Your task to perform on an android device: turn off javascript in the chrome app Image 0: 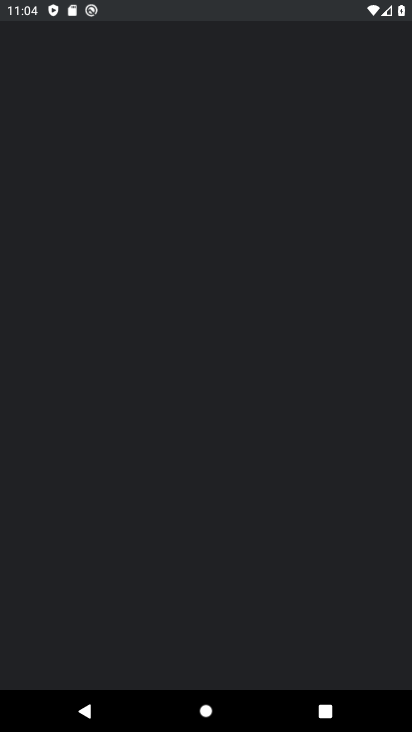
Step 0: press home button
Your task to perform on an android device: turn off javascript in the chrome app Image 1: 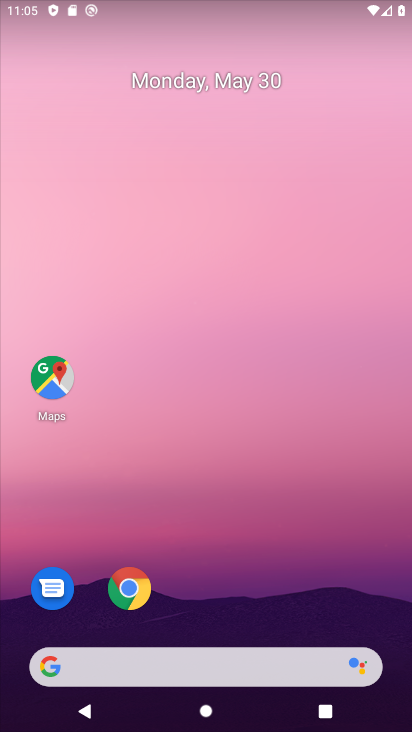
Step 1: click (127, 576)
Your task to perform on an android device: turn off javascript in the chrome app Image 2: 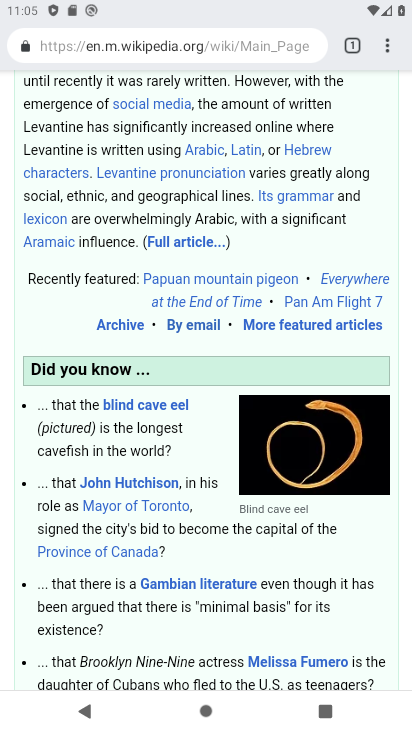
Step 2: click (389, 40)
Your task to perform on an android device: turn off javascript in the chrome app Image 3: 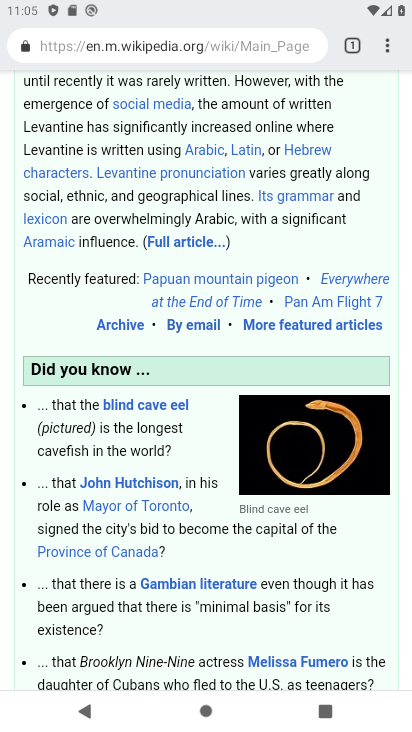
Step 3: click (384, 43)
Your task to perform on an android device: turn off javascript in the chrome app Image 4: 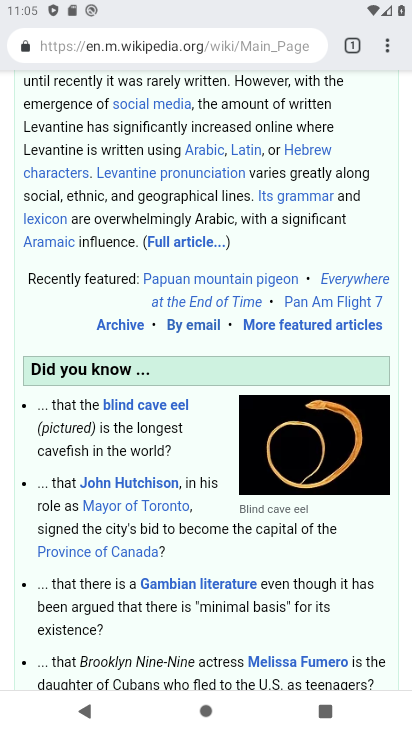
Step 4: click (383, 46)
Your task to perform on an android device: turn off javascript in the chrome app Image 5: 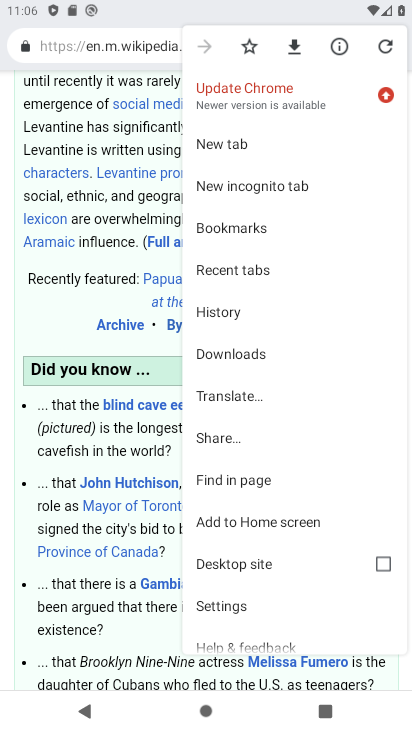
Step 5: click (248, 608)
Your task to perform on an android device: turn off javascript in the chrome app Image 6: 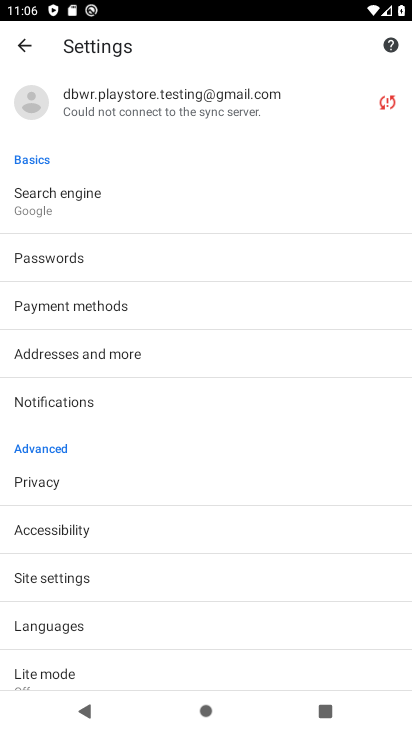
Step 6: click (119, 575)
Your task to perform on an android device: turn off javascript in the chrome app Image 7: 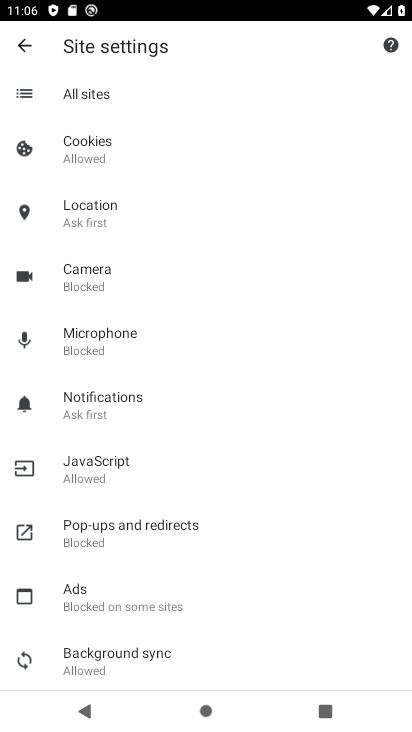
Step 7: click (141, 467)
Your task to perform on an android device: turn off javascript in the chrome app Image 8: 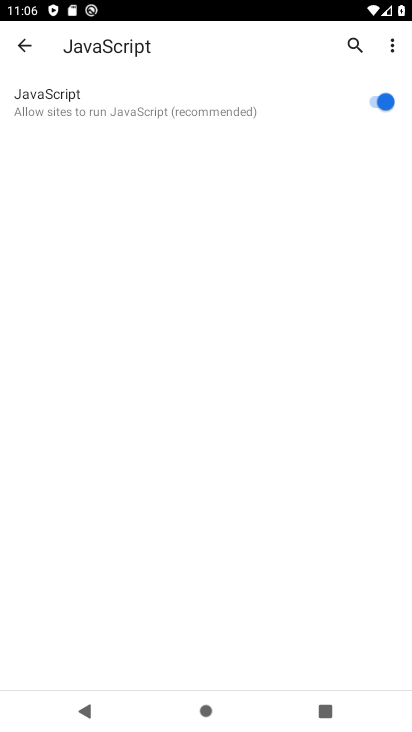
Step 8: click (377, 98)
Your task to perform on an android device: turn off javascript in the chrome app Image 9: 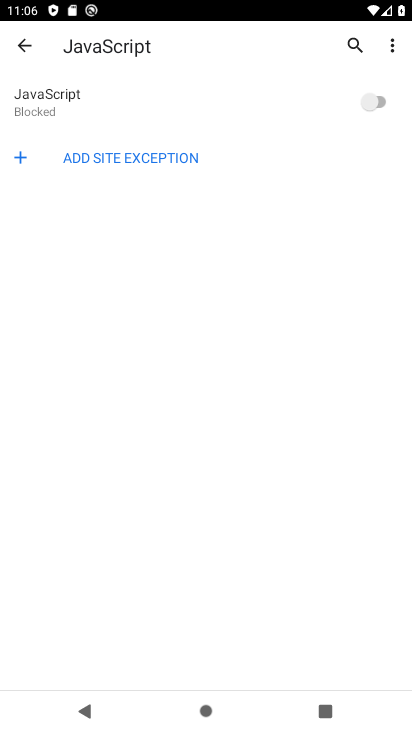
Step 9: task complete